Your task to perform on an android device: Open maps Image 0: 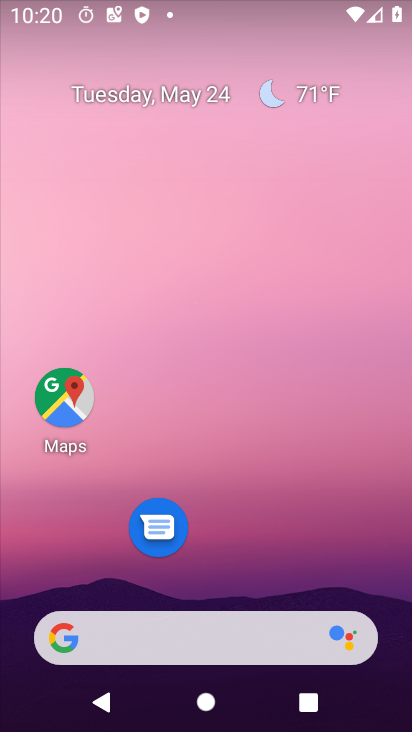
Step 0: click (68, 404)
Your task to perform on an android device: Open maps Image 1: 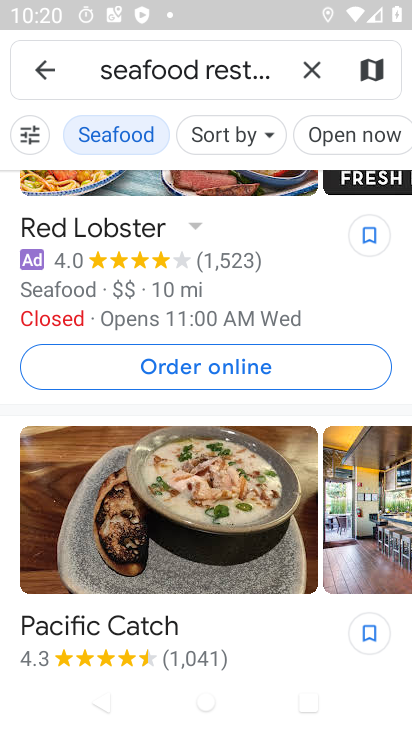
Step 1: task complete